Your task to perform on an android device: Open eBay Image 0: 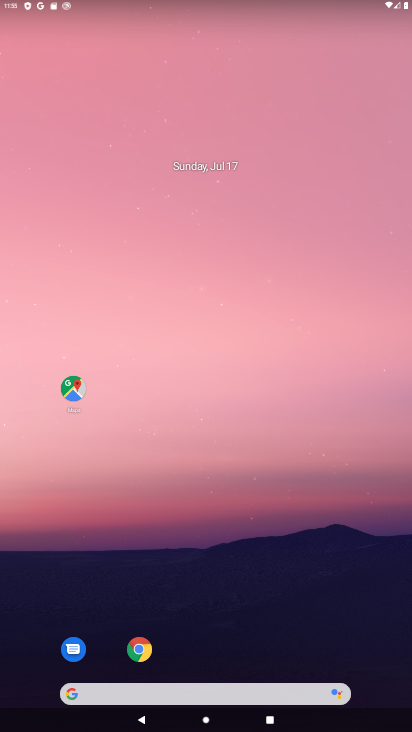
Step 0: click (162, 692)
Your task to perform on an android device: Open eBay Image 1: 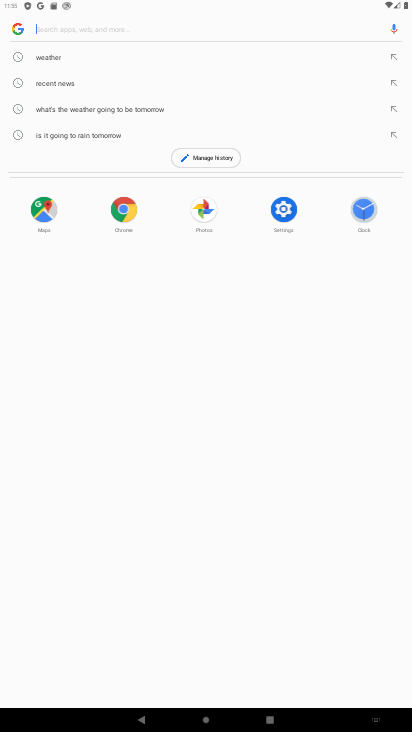
Step 1: type "ebay"
Your task to perform on an android device: Open eBay Image 2: 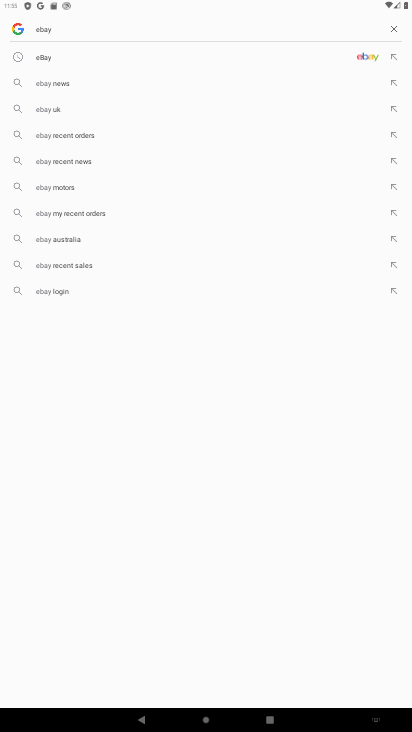
Step 2: click (106, 58)
Your task to perform on an android device: Open eBay Image 3: 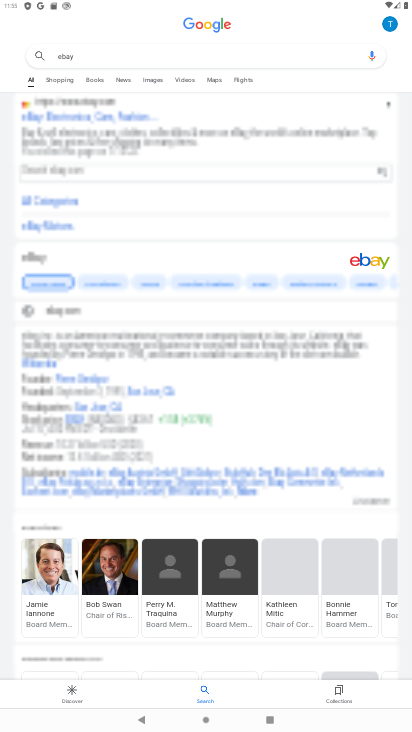
Step 3: task complete